Your task to perform on an android device: show emergency info Image 0: 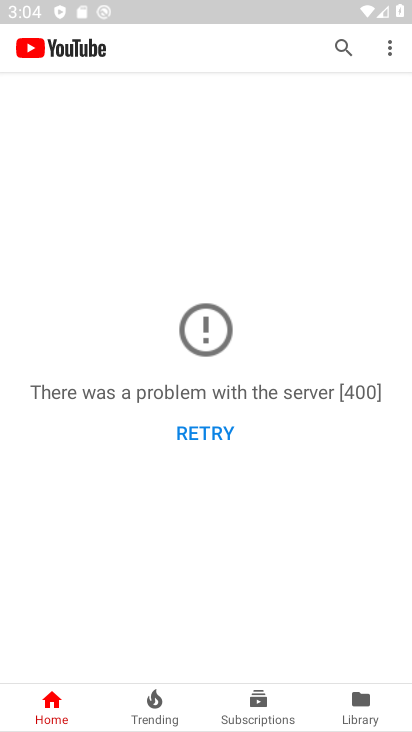
Step 0: press home button
Your task to perform on an android device: show emergency info Image 1: 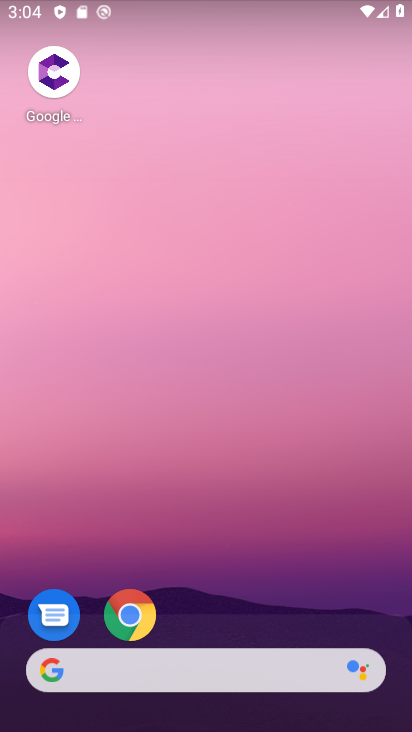
Step 1: drag from (275, 486) to (253, 0)
Your task to perform on an android device: show emergency info Image 2: 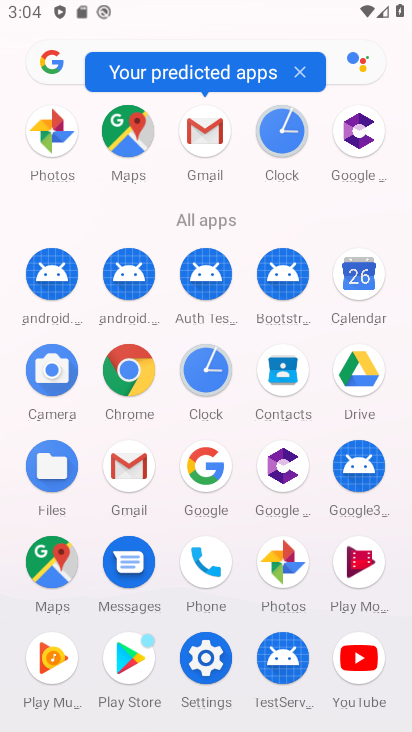
Step 2: drag from (237, 207) to (244, 21)
Your task to perform on an android device: show emergency info Image 3: 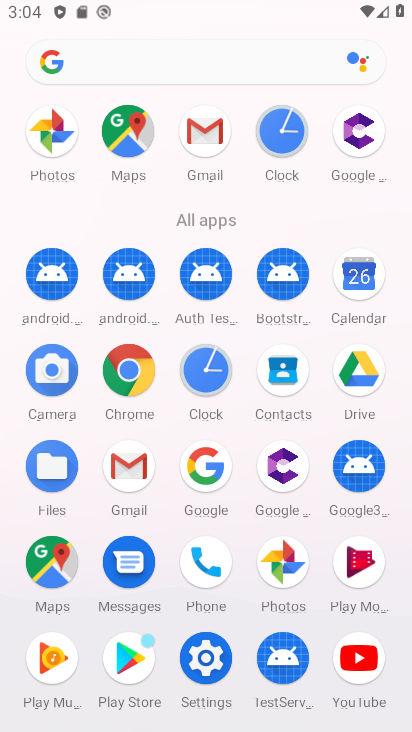
Step 3: click (218, 658)
Your task to perform on an android device: show emergency info Image 4: 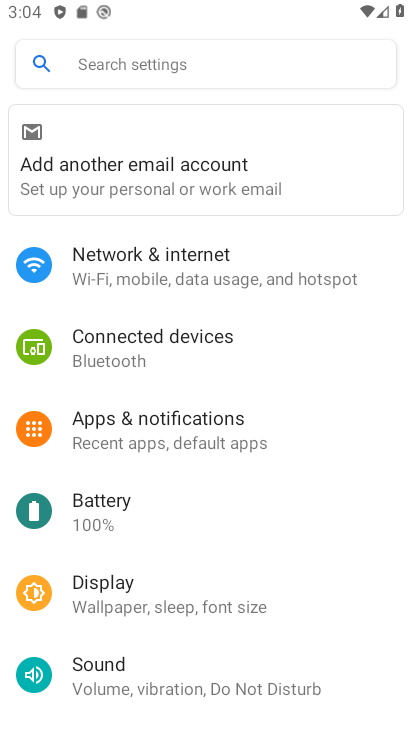
Step 4: drag from (225, 665) to (223, 9)
Your task to perform on an android device: show emergency info Image 5: 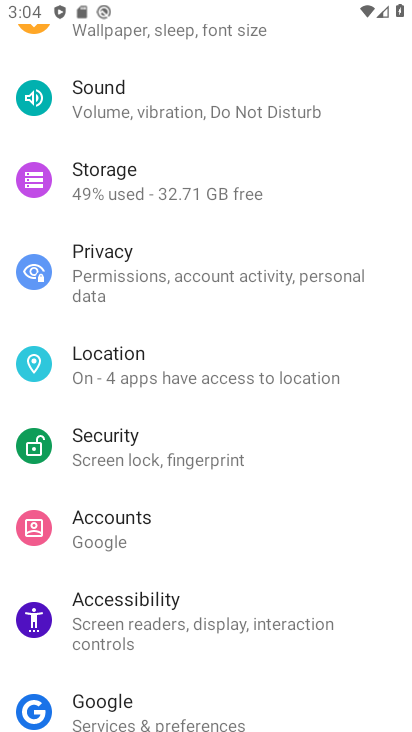
Step 5: drag from (189, 656) to (170, 161)
Your task to perform on an android device: show emergency info Image 6: 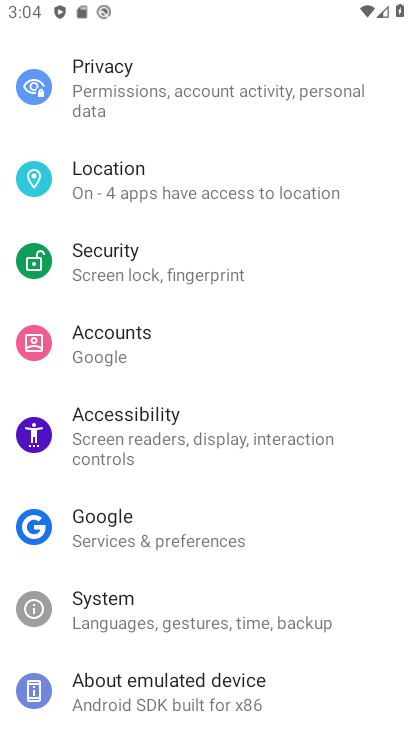
Step 6: click (163, 690)
Your task to perform on an android device: show emergency info Image 7: 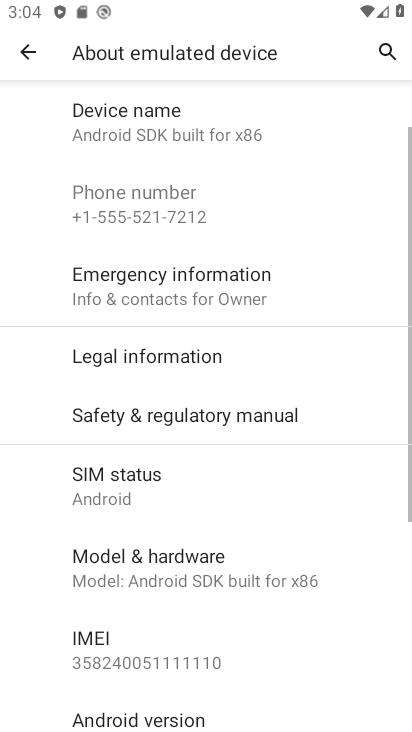
Step 7: click (163, 284)
Your task to perform on an android device: show emergency info Image 8: 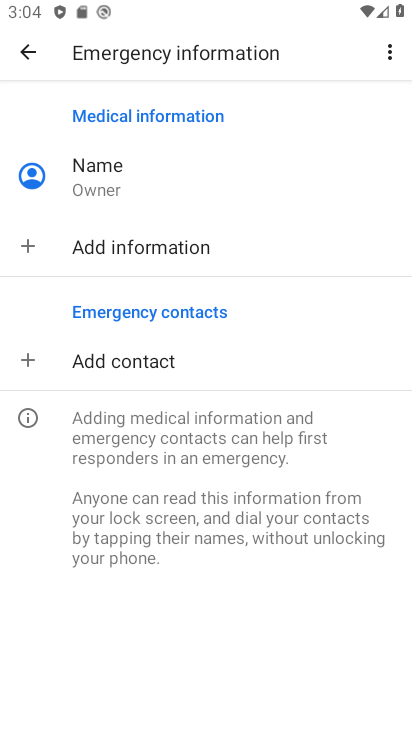
Step 8: task complete